Your task to perform on an android device: Open the calendar and show me this week's events Image 0: 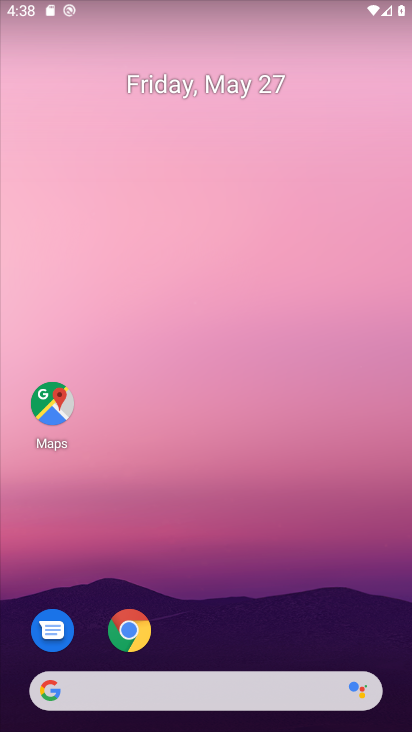
Step 0: drag from (175, 667) to (284, 128)
Your task to perform on an android device: Open the calendar and show me this week's events Image 1: 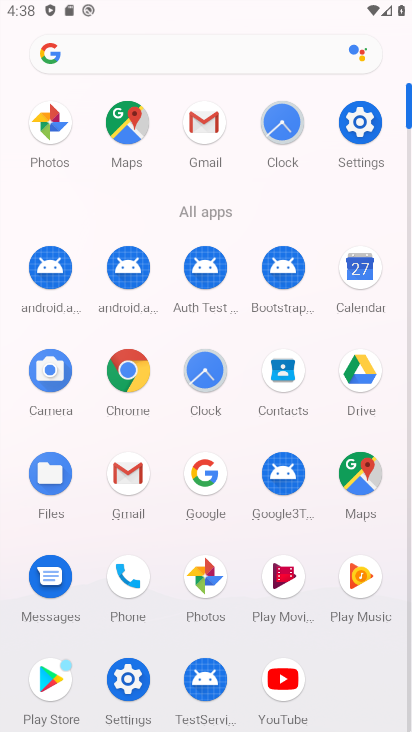
Step 1: click (352, 271)
Your task to perform on an android device: Open the calendar and show me this week's events Image 2: 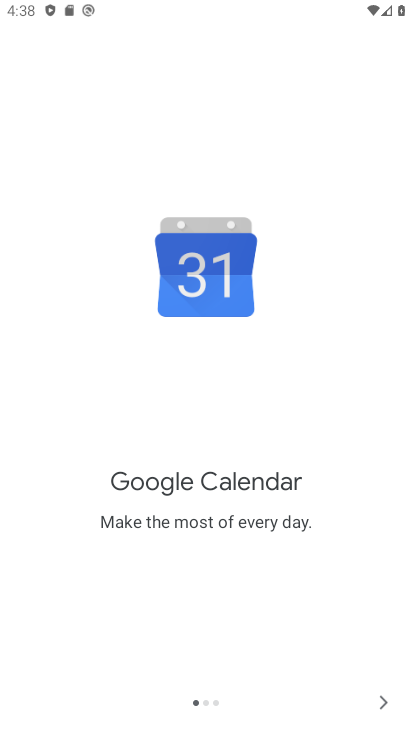
Step 2: click (395, 709)
Your task to perform on an android device: Open the calendar and show me this week's events Image 3: 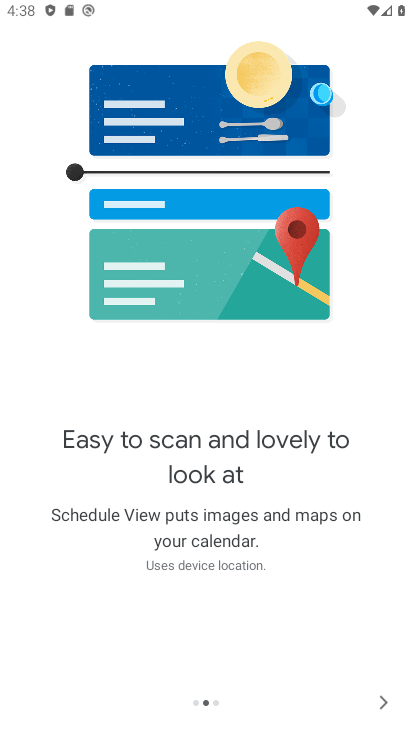
Step 3: click (395, 709)
Your task to perform on an android device: Open the calendar and show me this week's events Image 4: 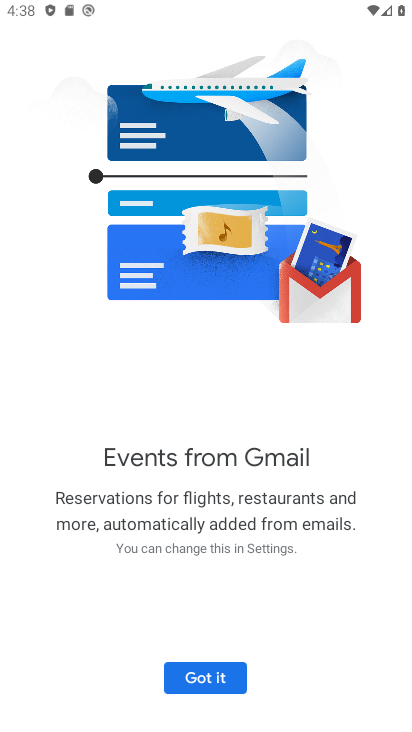
Step 4: click (209, 673)
Your task to perform on an android device: Open the calendar and show me this week's events Image 5: 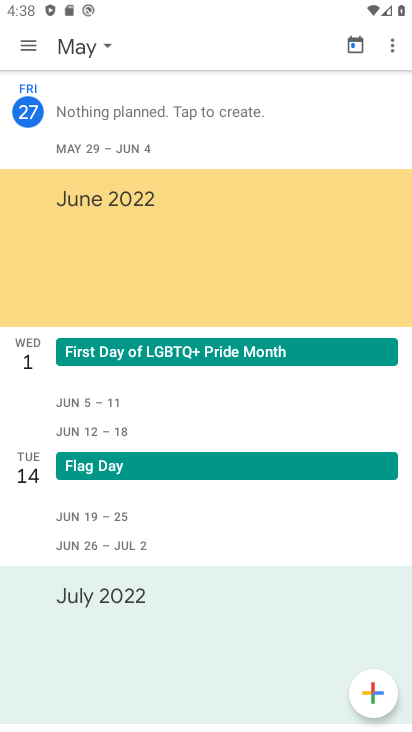
Step 5: click (22, 43)
Your task to perform on an android device: Open the calendar and show me this week's events Image 6: 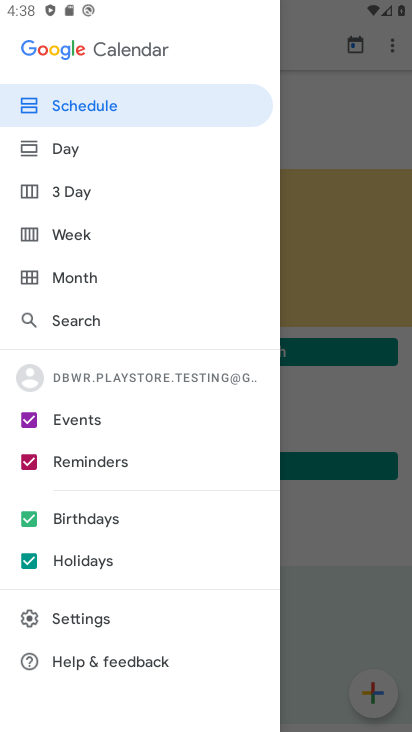
Step 6: click (75, 237)
Your task to perform on an android device: Open the calendar and show me this week's events Image 7: 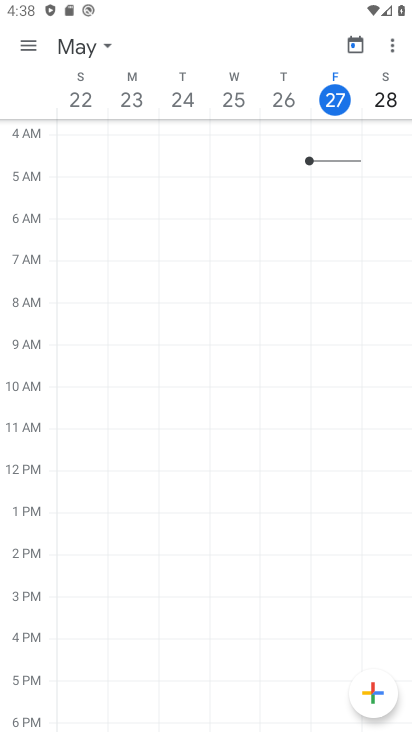
Step 7: task complete